Your task to perform on an android device: Open Yahoo.com Image 0: 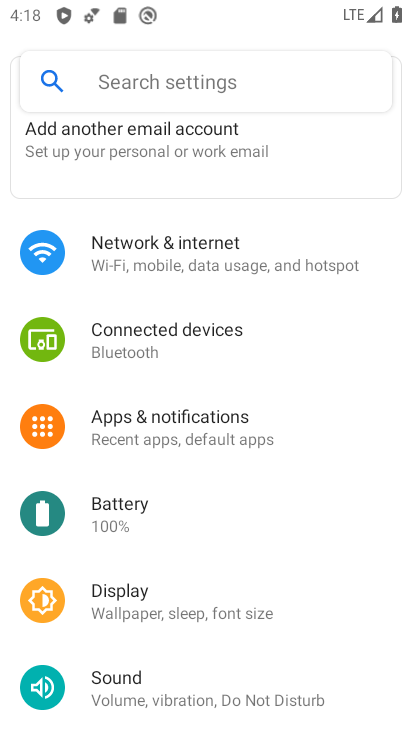
Step 0: press home button
Your task to perform on an android device: Open Yahoo.com Image 1: 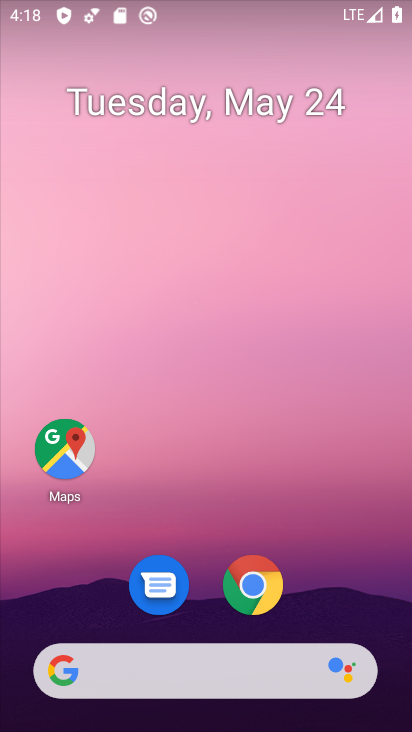
Step 1: click (273, 667)
Your task to perform on an android device: Open Yahoo.com Image 2: 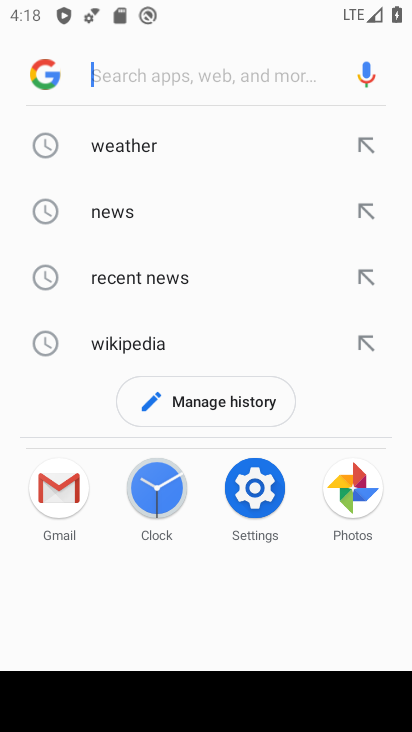
Step 2: type "yahoo.com"
Your task to perform on an android device: Open Yahoo.com Image 3: 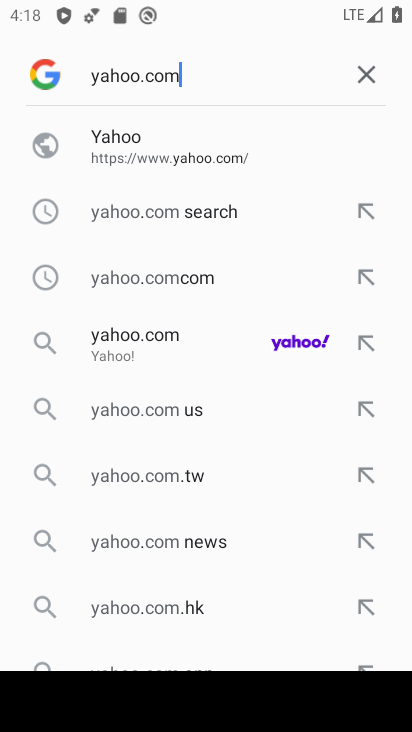
Step 3: click (126, 345)
Your task to perform on an android device: Open Yahoo.com Image 4: 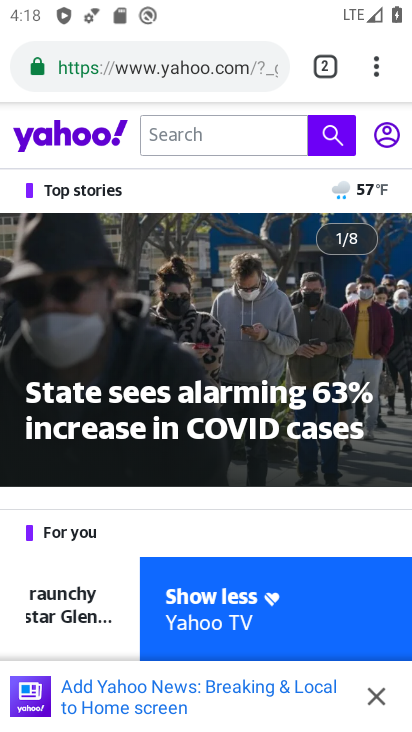
Step 4: task complete